Your task to perform on an android device: add a contact in the contacts app Image 0: 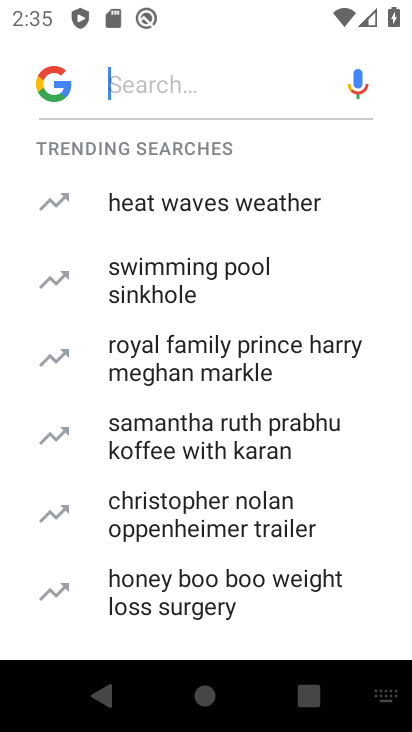
Step 0: press back button
Your task to perform on an android device: add a contact in the contacts app Image 1: 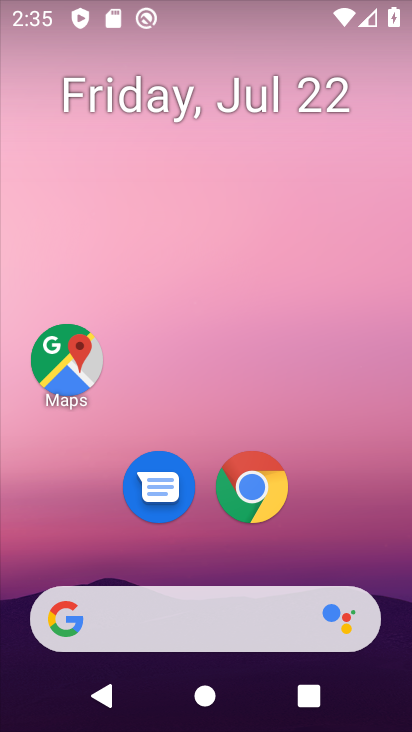
Step 1: drag from (125, 561) to (187, 78)
Your task to perform on an android device: add a contact in the contacts app Image 2: 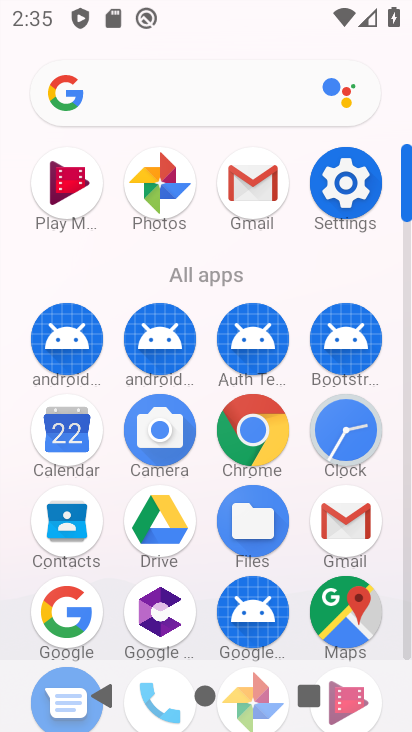
Step 2: click (65, 516)
Your task to perform on an android device: add a contact in the contacts app Image 3: 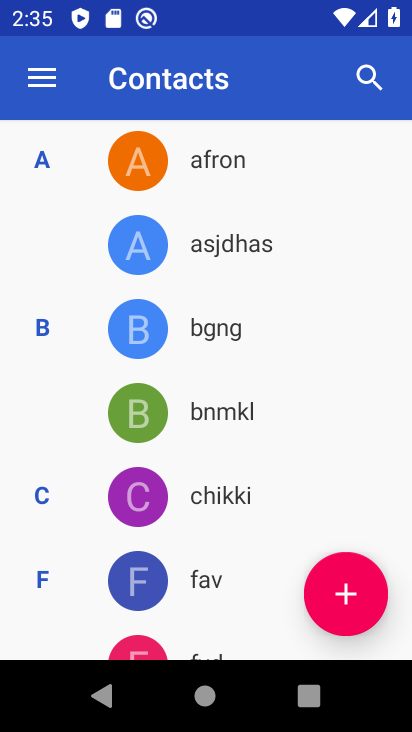
Step 3: click (341, 589)
Your task to perform on an android device: add a contact in the contacts app Image 4: 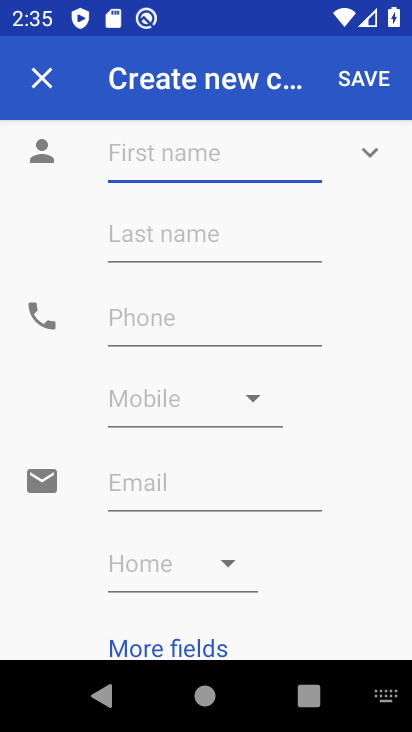
Step 4: click (153, 161)
Your task to perform on an android device: add a contact in the contacts app Image 5: 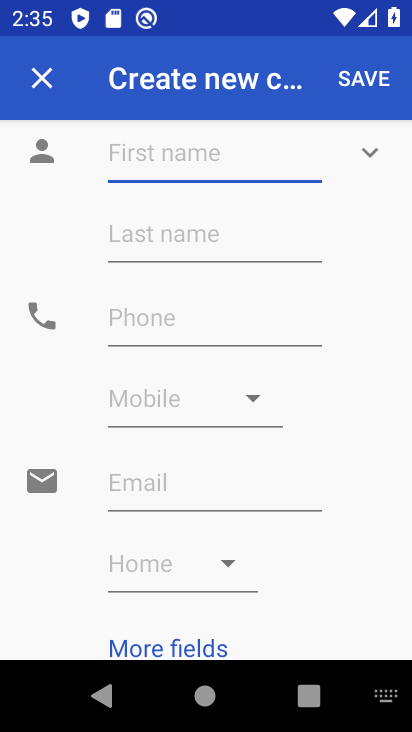
Step 5: type "fgfgf"
Your task to perform on an android device: add a contact in the contacts app Image 6: 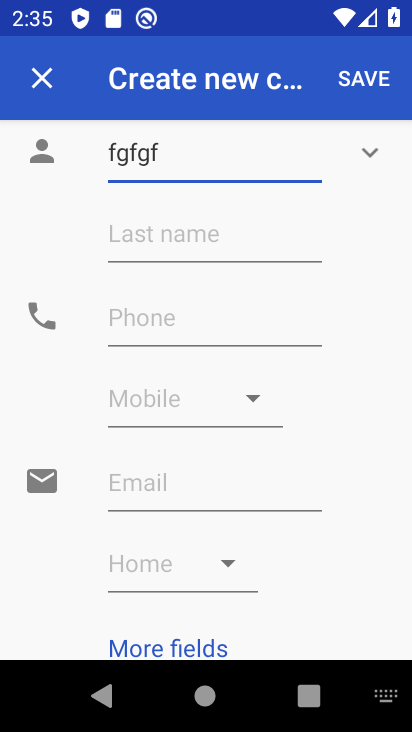
Step 6: click (122, 314)
Your task to perform on an android device: add a contact in the contacts app Image 7: 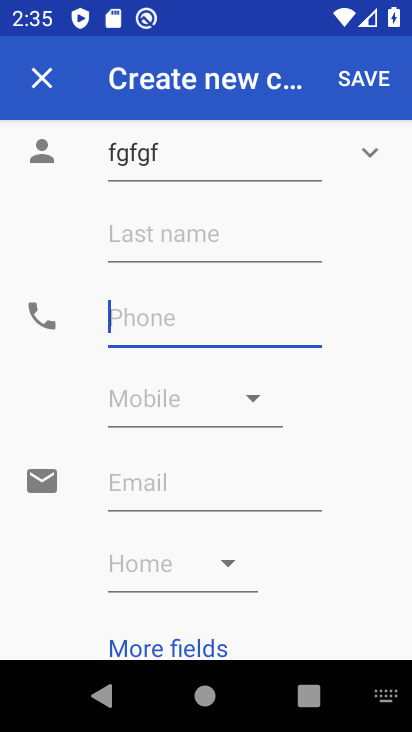
Step 7: type "98989"
Your task to perform on an android device: add a contact in the contacts app Image 8: 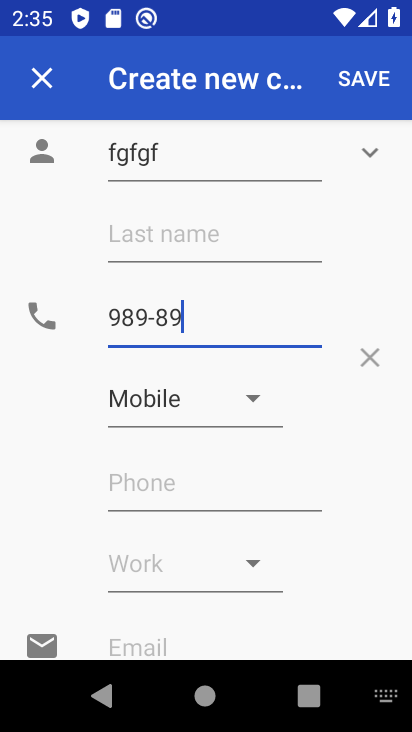
Step 8: click (364, 76)
Your task to perform on an android device: add a contact in the contacts app Image 9: 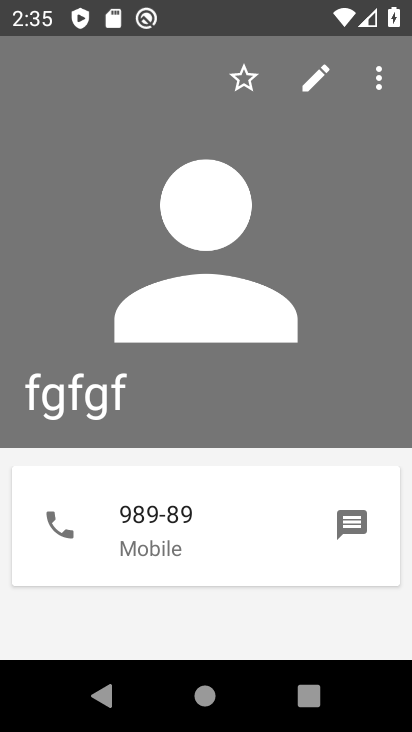
Step 9: task complete